Your task to perform on an android device: Go to ESPN.com Image 0: 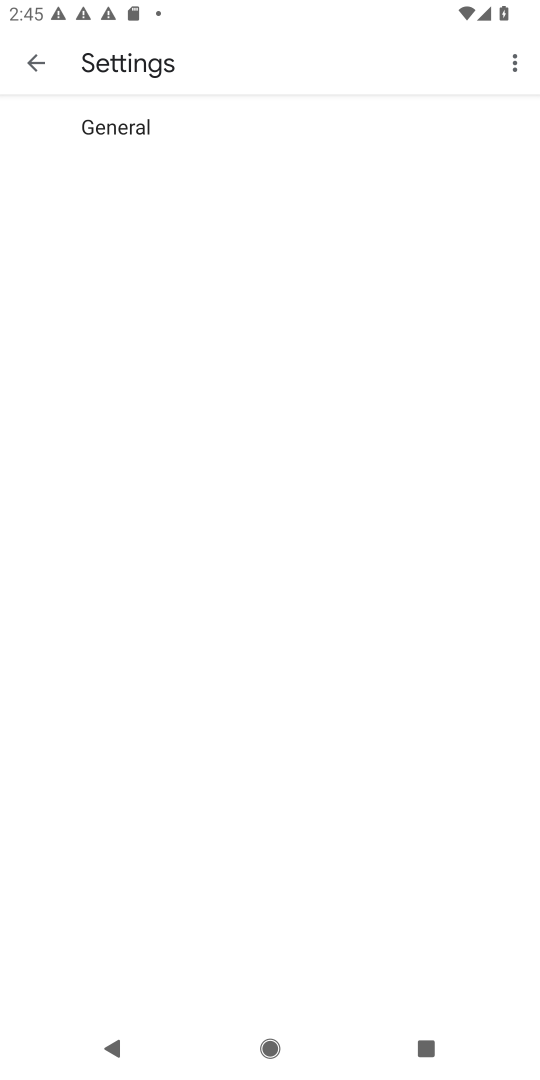
Step 0: click (31, 67)
Your task to perform on an android device: Go to ESPN.com Image 1: 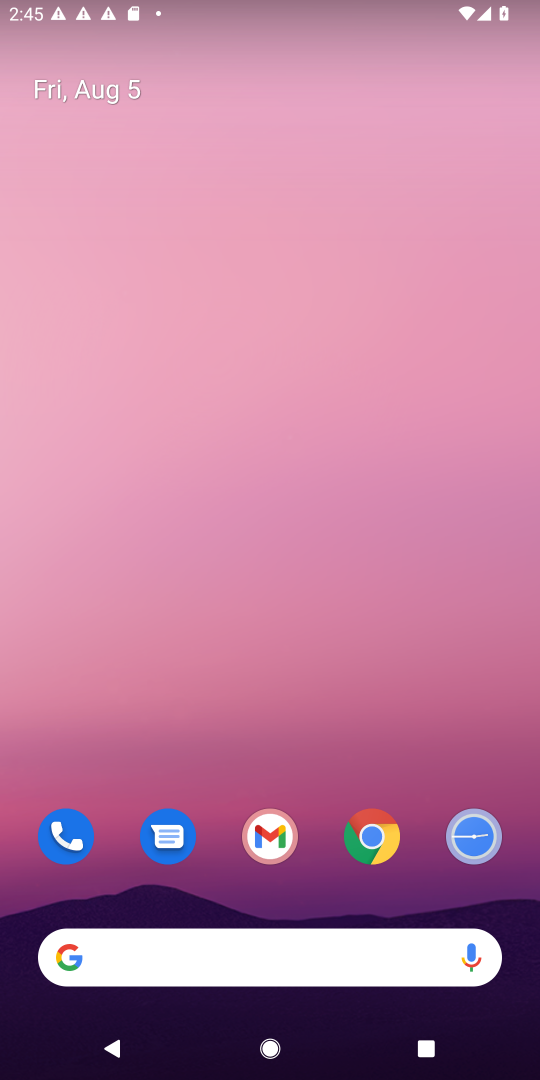
Step 1: drag from (271, 885) to (236, 156)
Your task to perform on an android device: Go to ESPN.com Image 2: 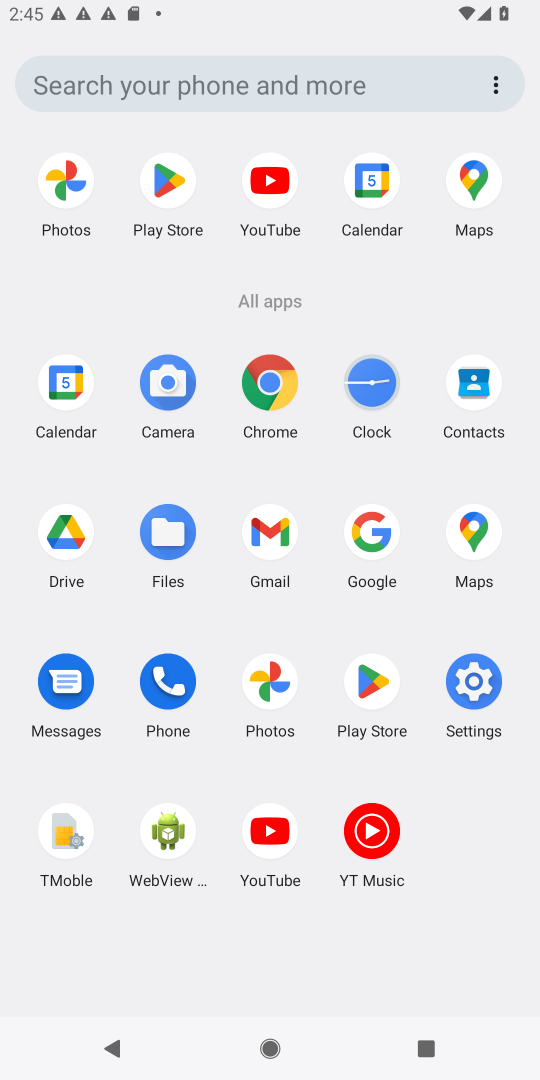
Step 2: click (259, 415)
Your task to perform on an android device: Go to ESPN.com Image 3: 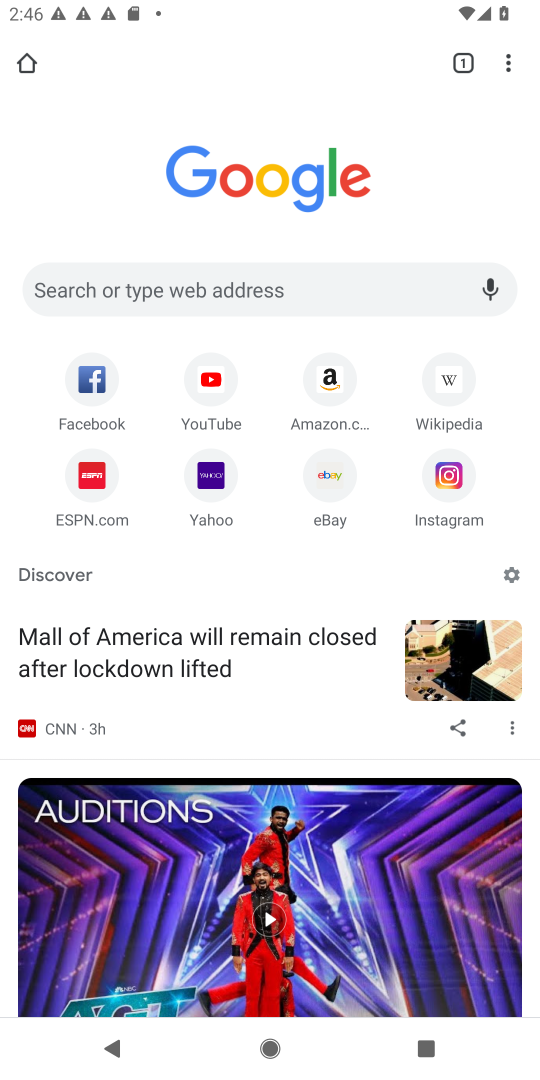
Step 3: click (62, 489)
Your task to perform on an android device: Go to ESPN.com Image 4: 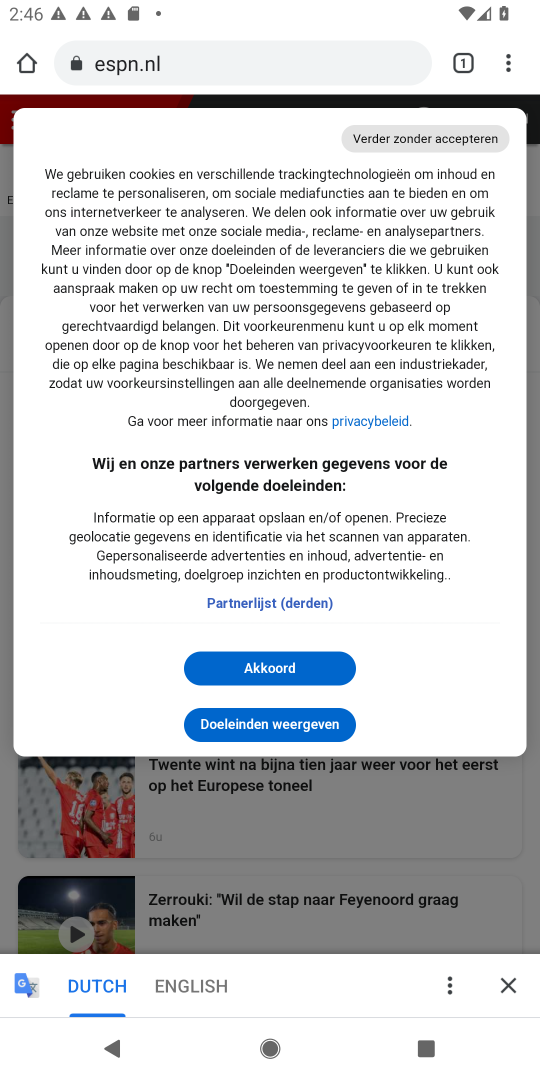
Step 4: task complete